Your task to perform on an android device: check battery use Image 0: 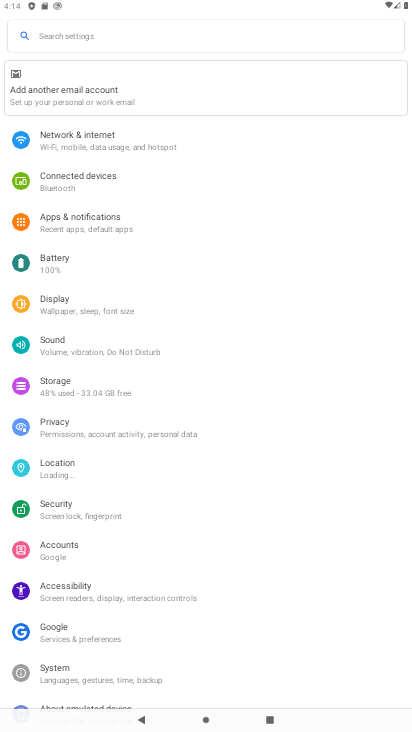
Step 0: click (74, 265)
Your task to perform on an android device: check battery use Image 1: 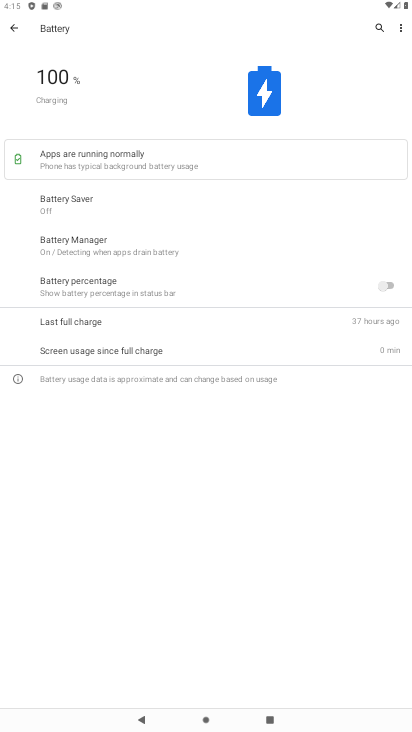
Step 1: task complete